Your task to perform on an android device: Search for Mexican restaurants on Maps Image 0: 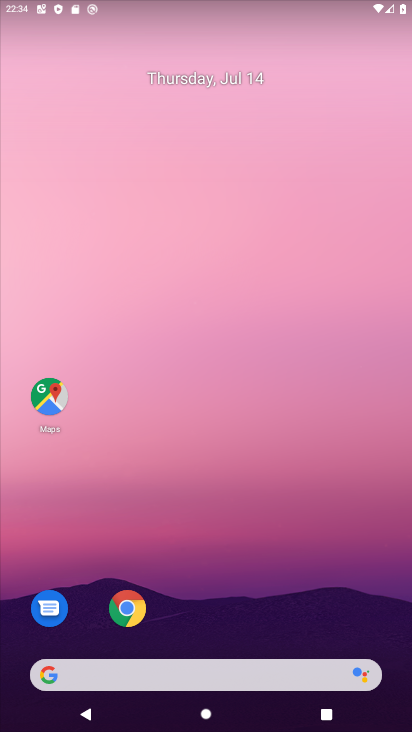
Step 0: click (194, 614)
Your task to perform on an android device: Search for Mexican restaurants on Maps Image 1: 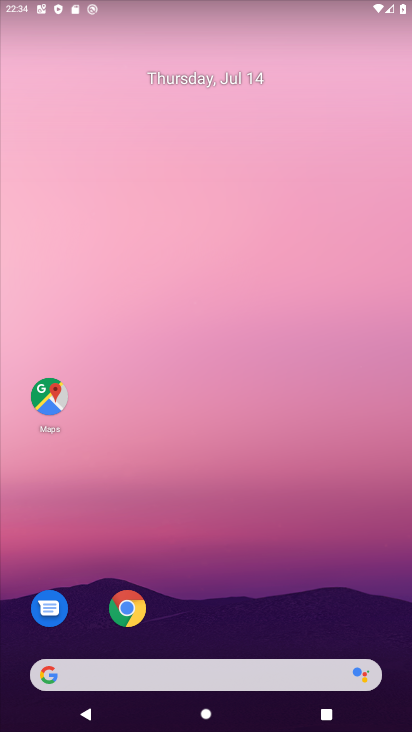
Step 1: click (46, 399)
Your task to perform on an android device: Search for Mexican restaurants on Maps Image 2: 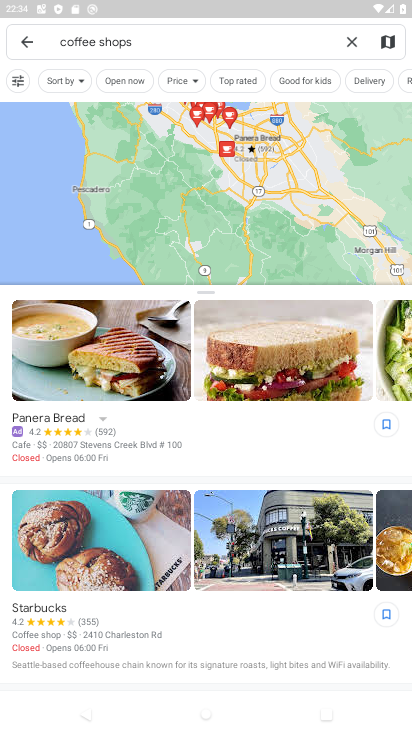
Step 2: click (352, 42)
Your task to perform on an android device: Search for Mexican restaurants on Maps Image 3: 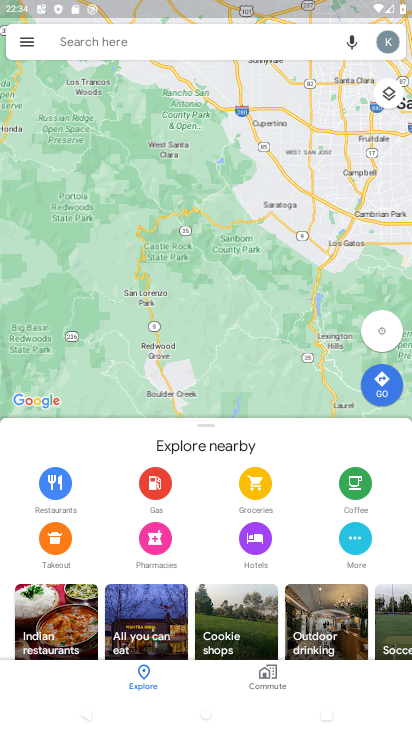
Step 3: click (223, 58)
Your task to perform on an android device: Search for Mexican restaurants on Maps Image 4: 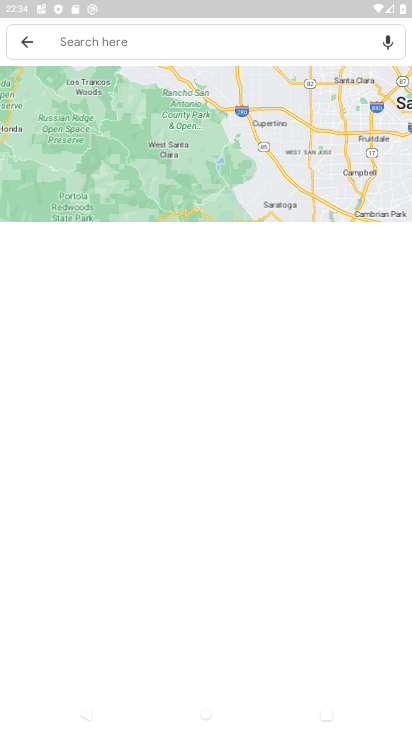
Step 4: click (196, 42)
Your task to perform on an android device: Search for Mexican restaurants on Maps Image 5: 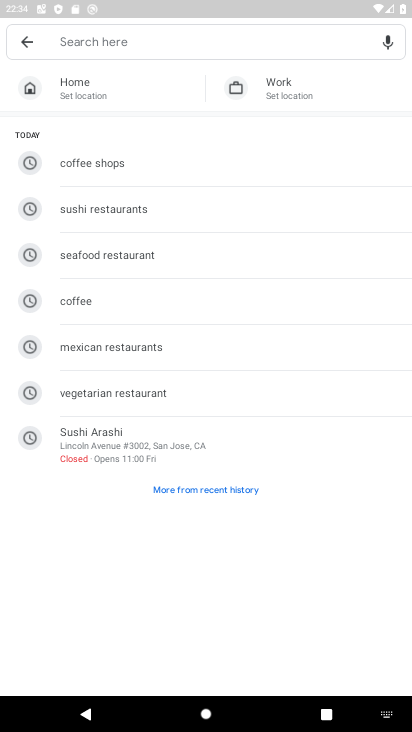
Step 5: click (121, 346)
Your task to perform on an android device: Search for Mexican restaurants on Maps Image 6: 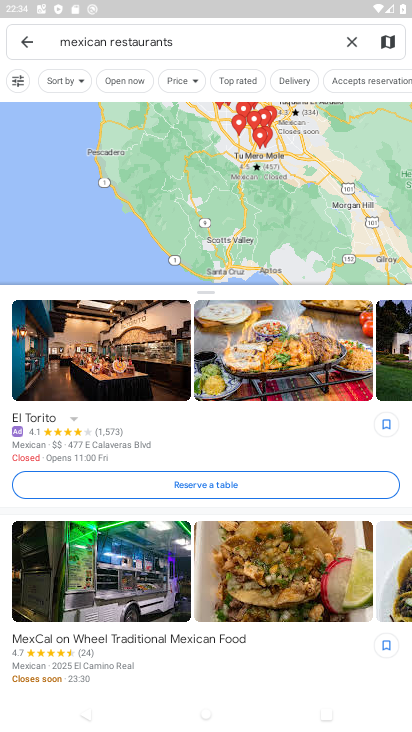
Step 6: task complete